Your task to perform on an android device: search for starred emails in the gmail app Image 0: 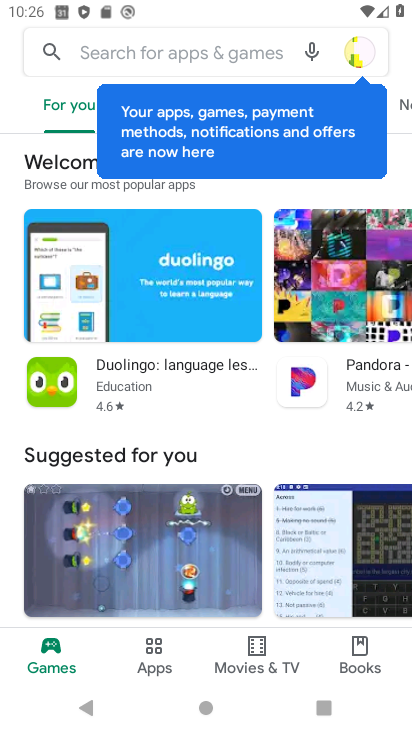
Step 0: press home button
Your task to perform on an android device: search for starred emails in the gmail app Image 1: 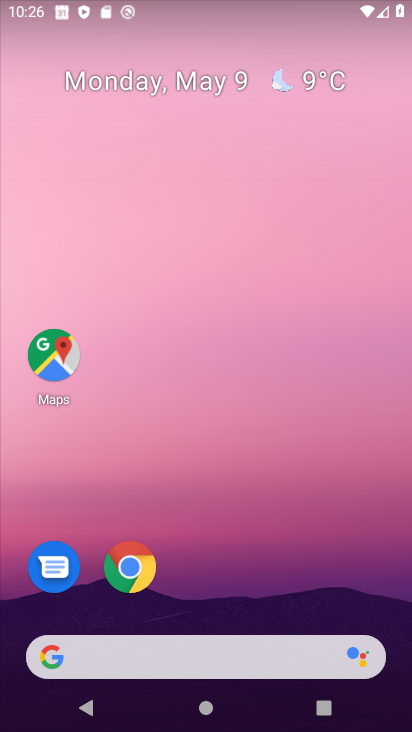
Step 1: drag from (204, 589) to (254, 107)
Your task to perform on an android device: search for starred emails in the gmail app Image 2: 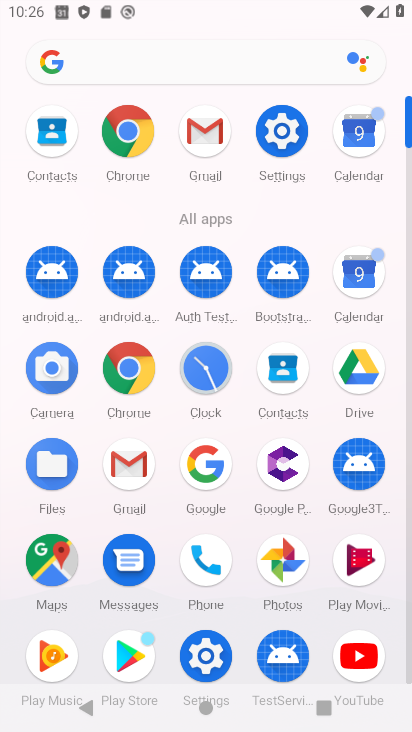
Step 2: click (128, 461)
Your task to perform on an android device: search for starred emails in the gmail app Image 3: 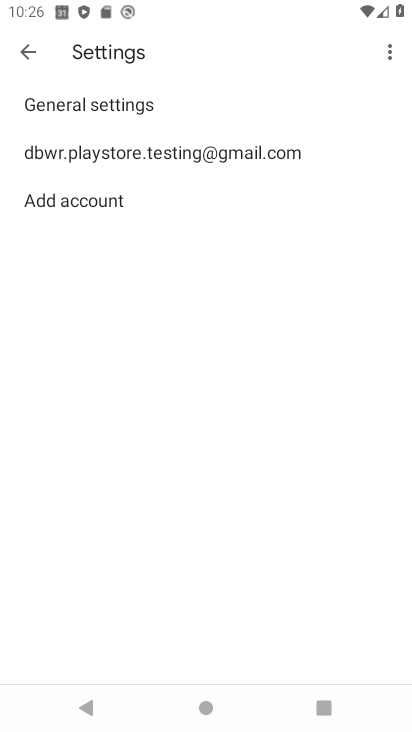
Step 3: click (26, 54)
Your task to perform on an android device: search for starred emails in the gmail app Image 4: 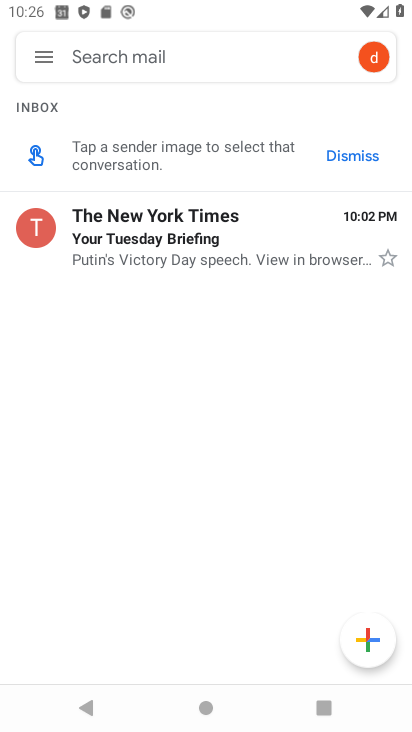
Step 4: click (35, 50)
Your task to perform on an android device: search for starred emails in the gmail app Image 5: 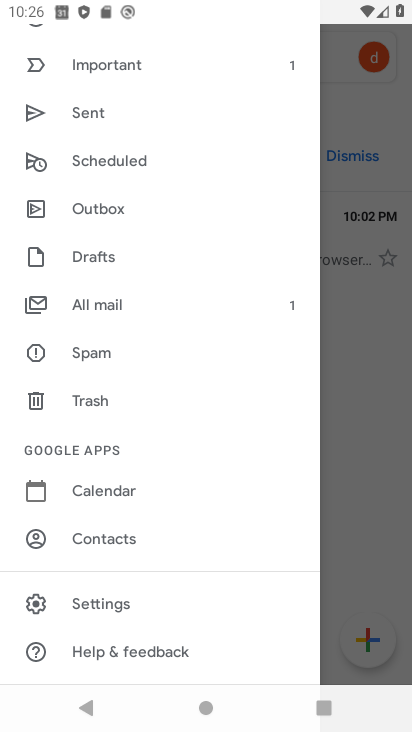
Step 5: drag from (107, 104) to (105, 506)
Your task to perform on an android device: search for starred emails in the gmail app Image 6: 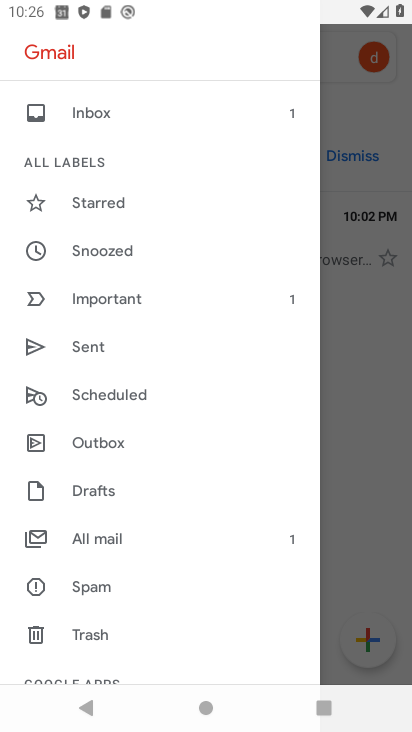
Step 6: click (127, 196)
Your task to perform on an android device: search for starred emails in the gmail app Image 7: 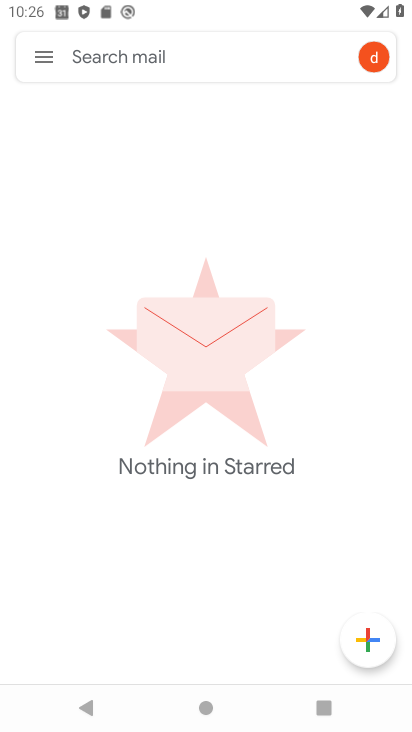
Step 7: task complete